Your task to perform on an android device: Open the phone app and click the voicemail tab. Image 0: 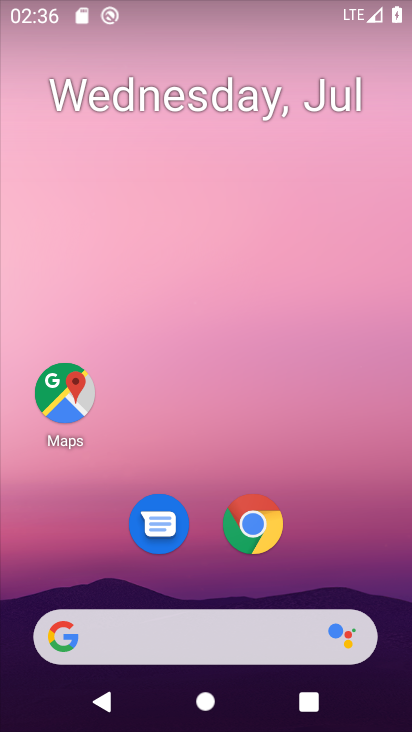
Step 0: drag from (323, 534) to (322, 64)
Your task to perform on an android device: Open the phone app and click the voicemail tab. Image 1: 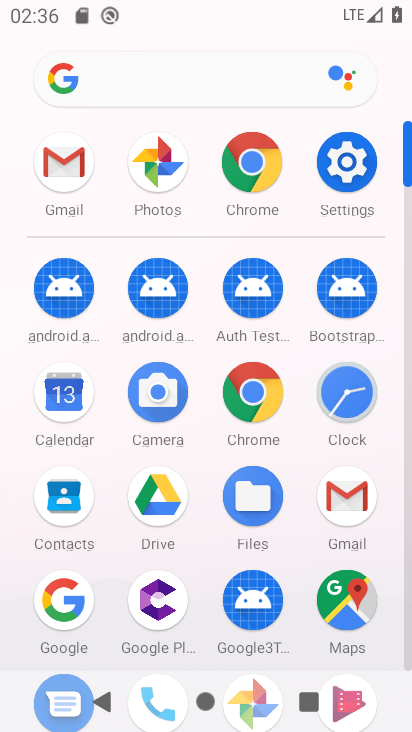
Step 1: drag from (200, 604) to (205, 311)
Your task to perform on an android device: Open the phone app and click the voicemail tab. Image 2: 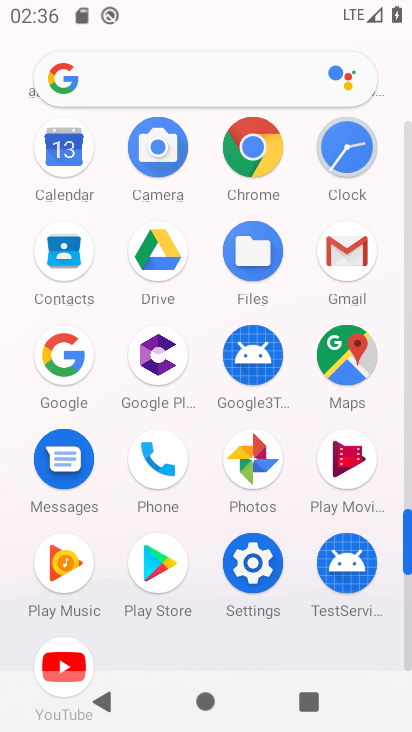
Step 2: click (171, 452)
Your task to perform on an android device: Open the phone app and click the voicemail tab. Image 3: 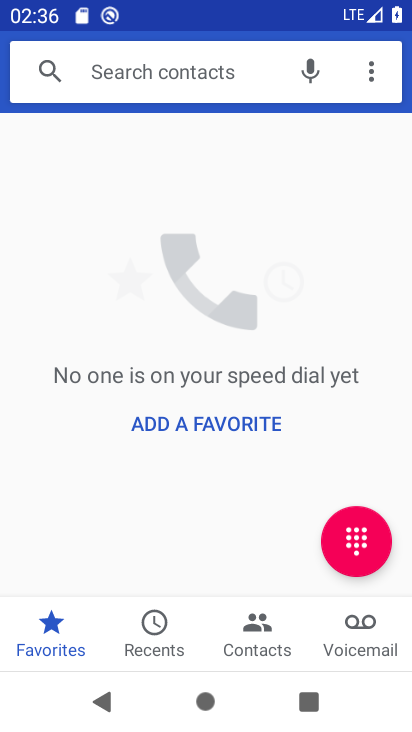
Step 3: click (346, 625)
Your task to perform on an android device: Open the phone app and click the voicemail tab. Image 4: 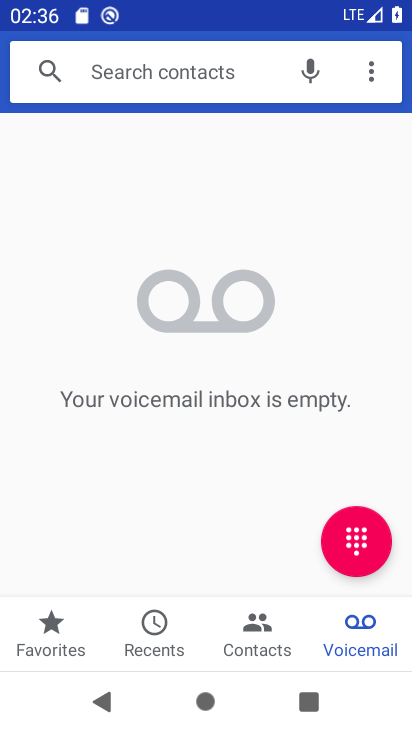
Step 4: task complete